Your task to perform on an android device: Open Yahoo.com Image 0: 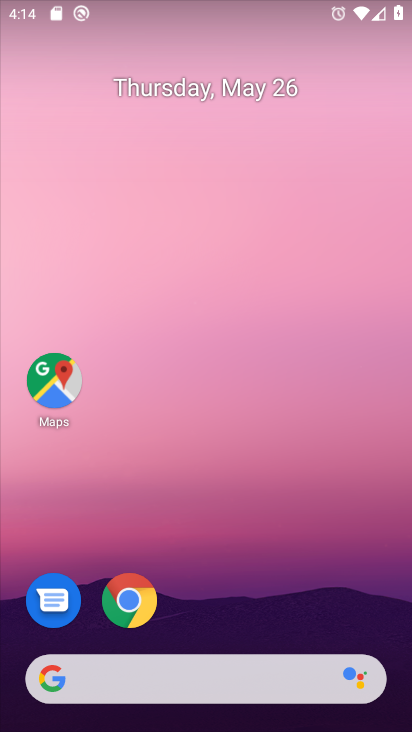
Step 0: click (142, 599)
Your task to perform on an android device: Open Yahoo.com Image 1: 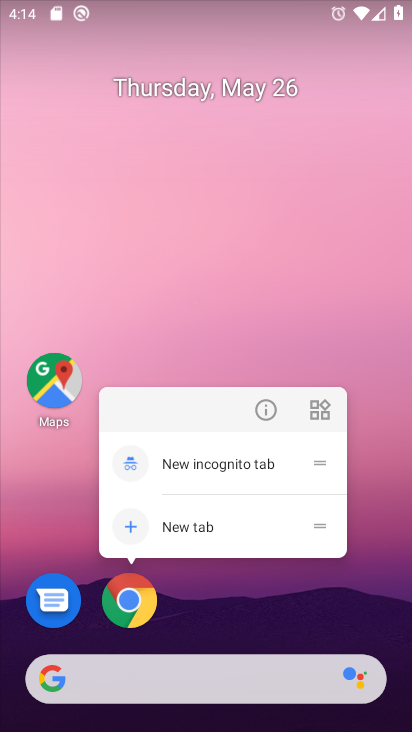
Step 1: click (125, 594)
Your task to perform on an android device: Open Yahoo.com Image 2: 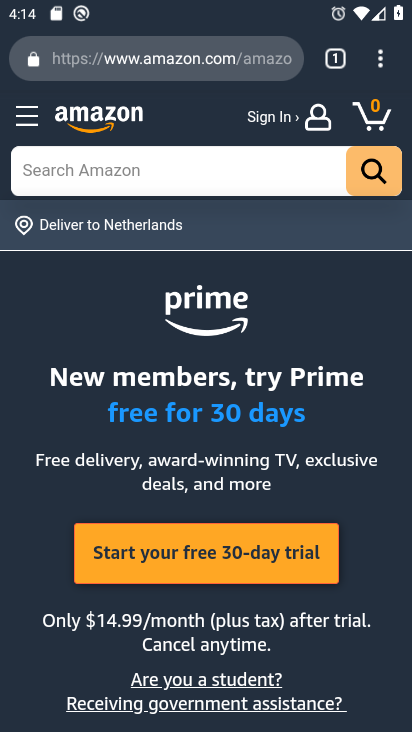
Step 2: click (211, 61)
Your task to perform on an android device: Open Yahoo.com Image 3: 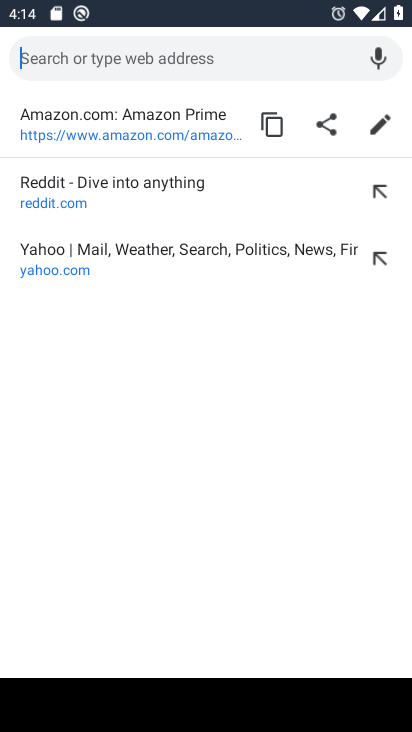
Step 3: type "Yahoo.com"
Your task to perform on an android device: Open Yahoo.com Image 4: 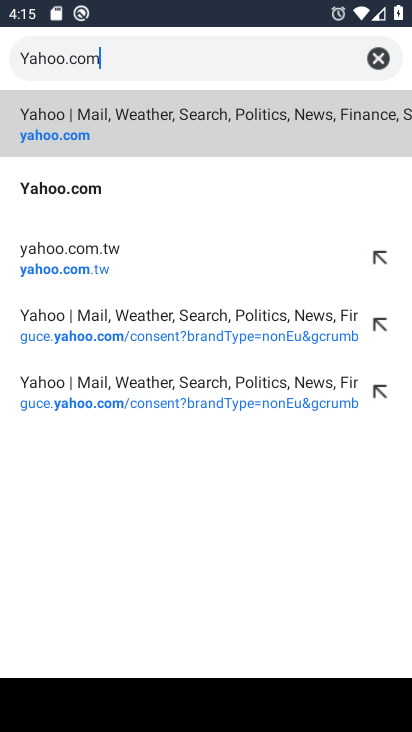
Step 4: click (176, 140)
Your task to perform on an android device: Open Yahoo.com Image 5: 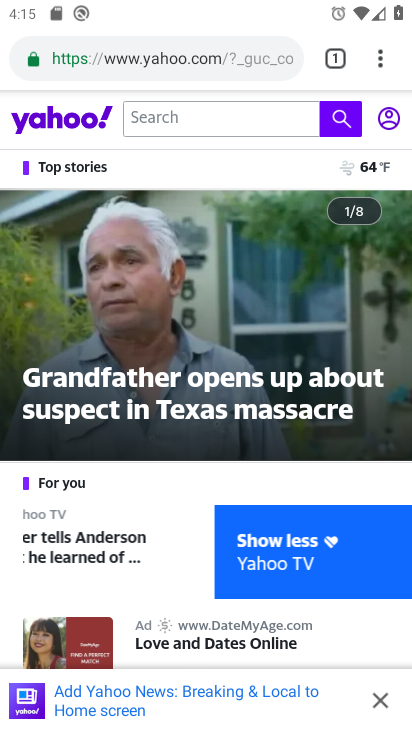
Step 5: task complete